Your task to perform on an android device: install app "Google Pay: Save, Pay, Manage" Image 0: 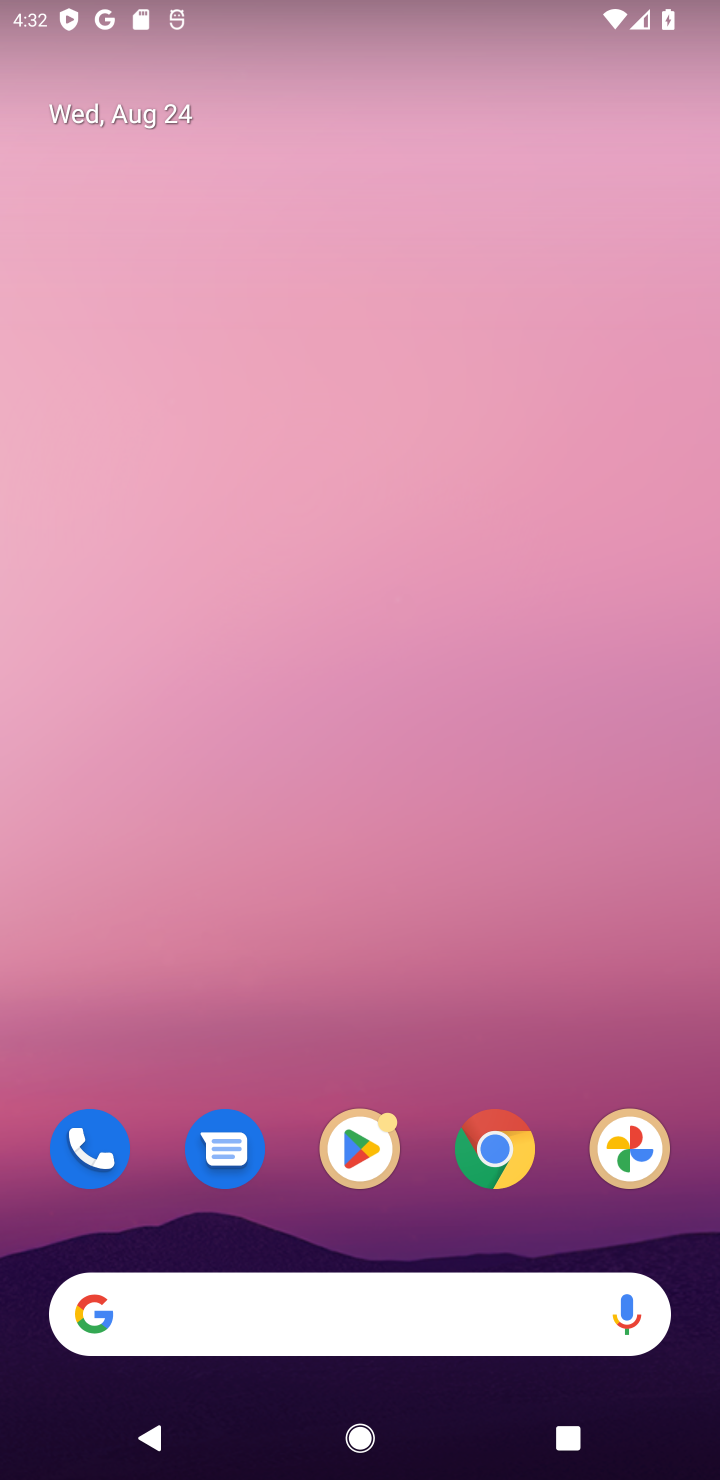
Step 0: click (367, 1154)
Your task to perform on an android device: install app "Google Pay: Save, Pay, Manage" Image 1: 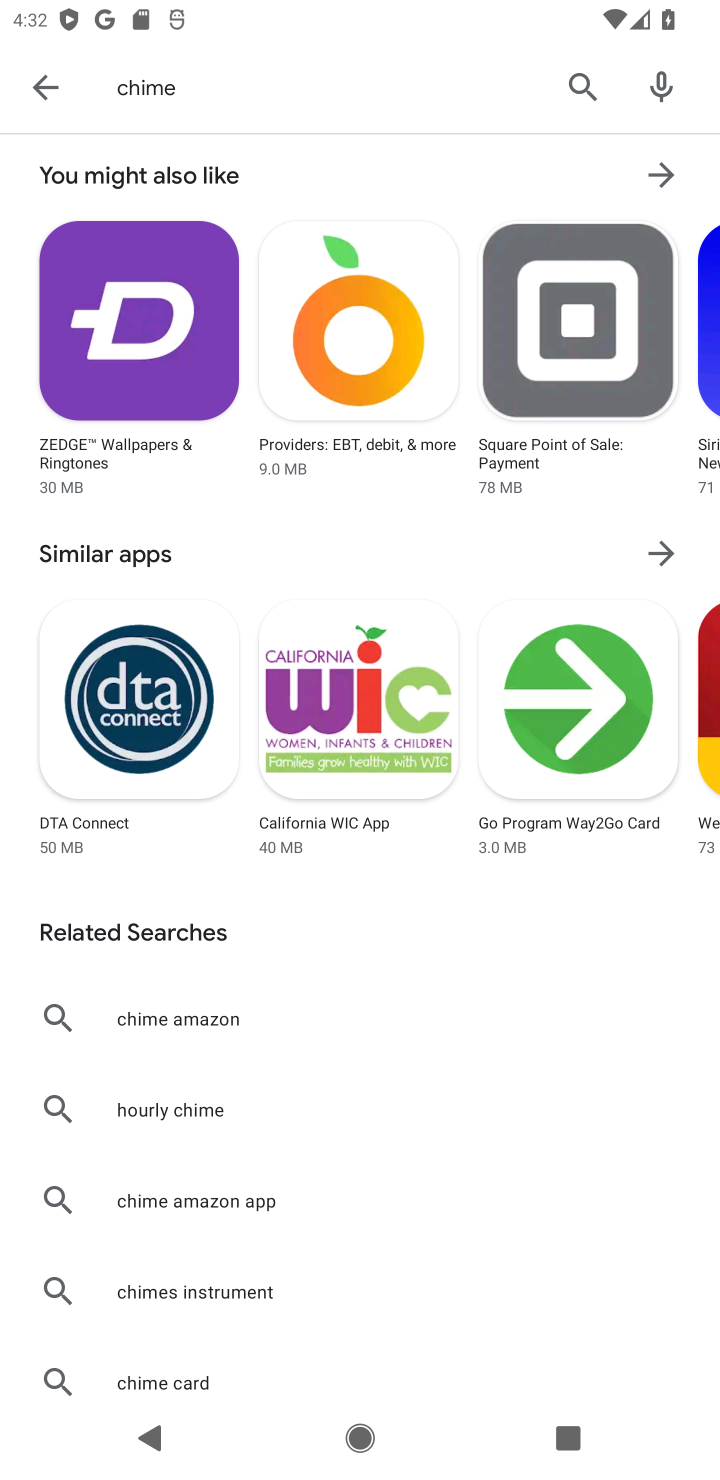
Step 1: click (572, 71)
Your task to perform on an android device: install app "Google Pay: Save, Pay, Manage" Image 2: 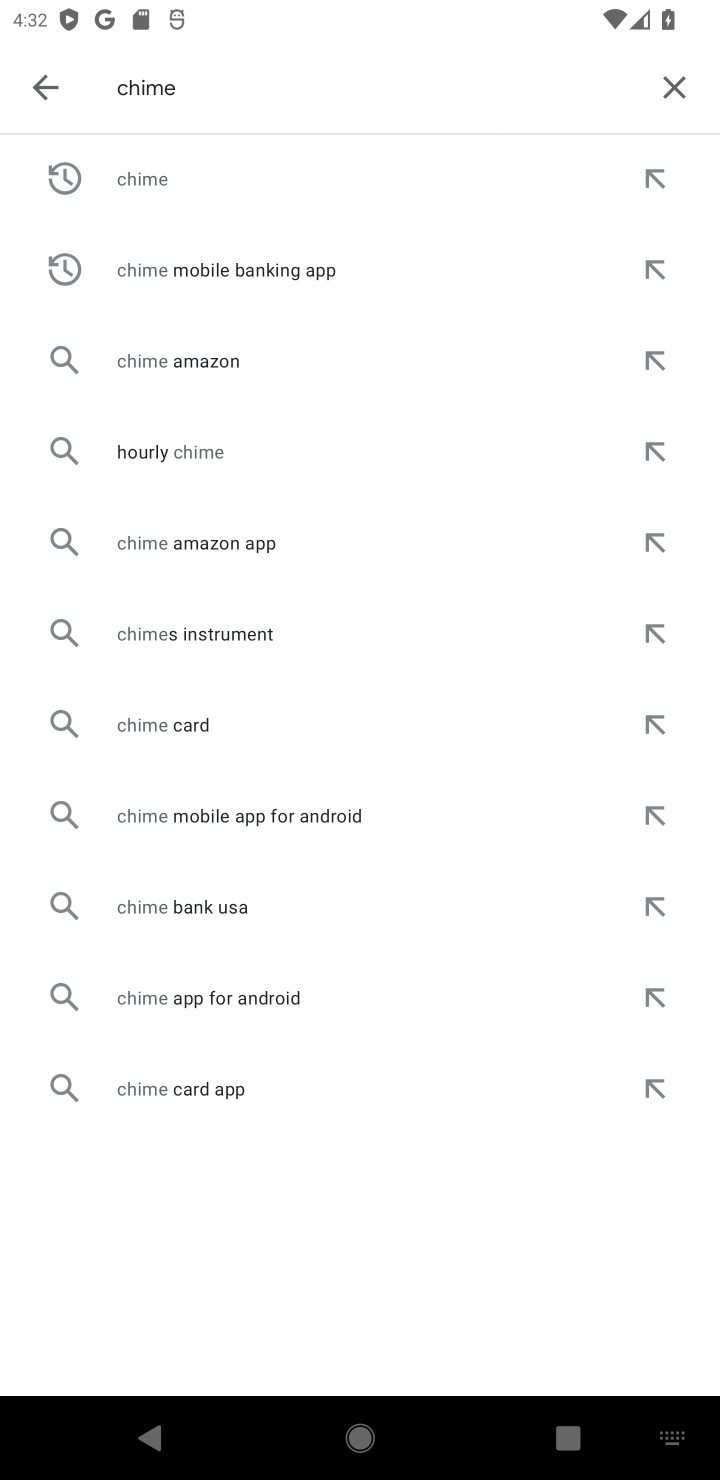
Step 2: click (674, 93)
Your task to perform on an android device: install app "Google Pay: Save, Pay, Manage" Image 3: 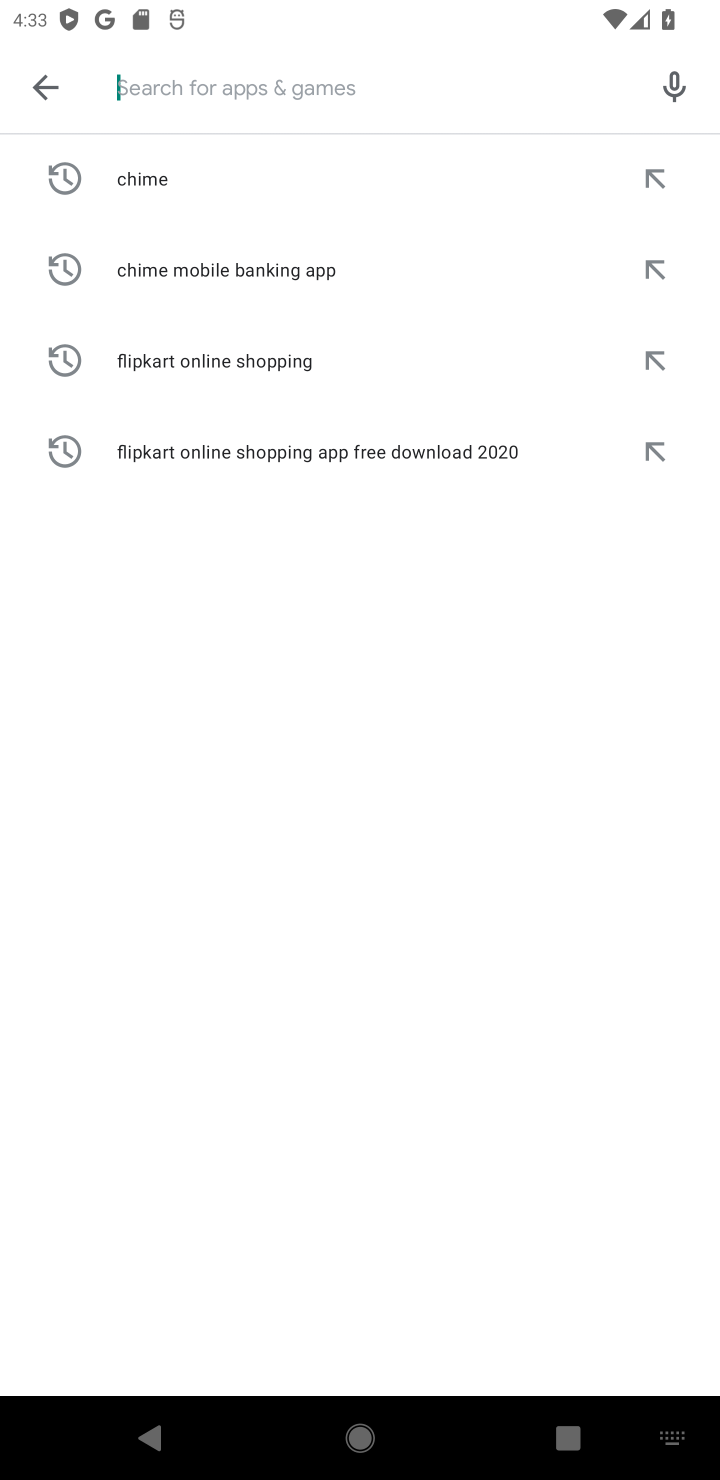
Step 3: type "Google Pay : Save, Pay Manage"
Your task to perform on an android device: install app "Google Pay: Save, Pay, Manage" Image 4: 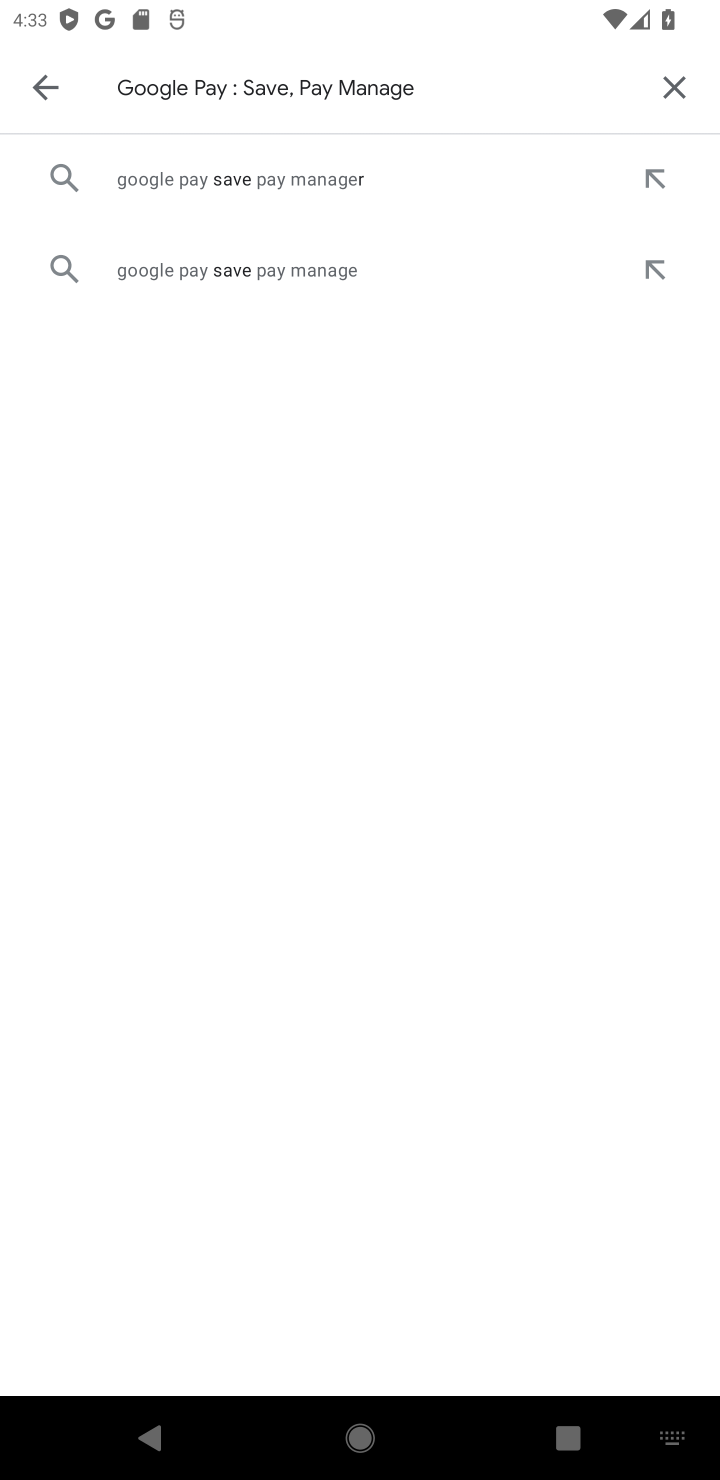
Step 4: click (233, 263)
Your task to perform on an android device: install app "Google Pay: Save, Pay, Manage" Image 5: 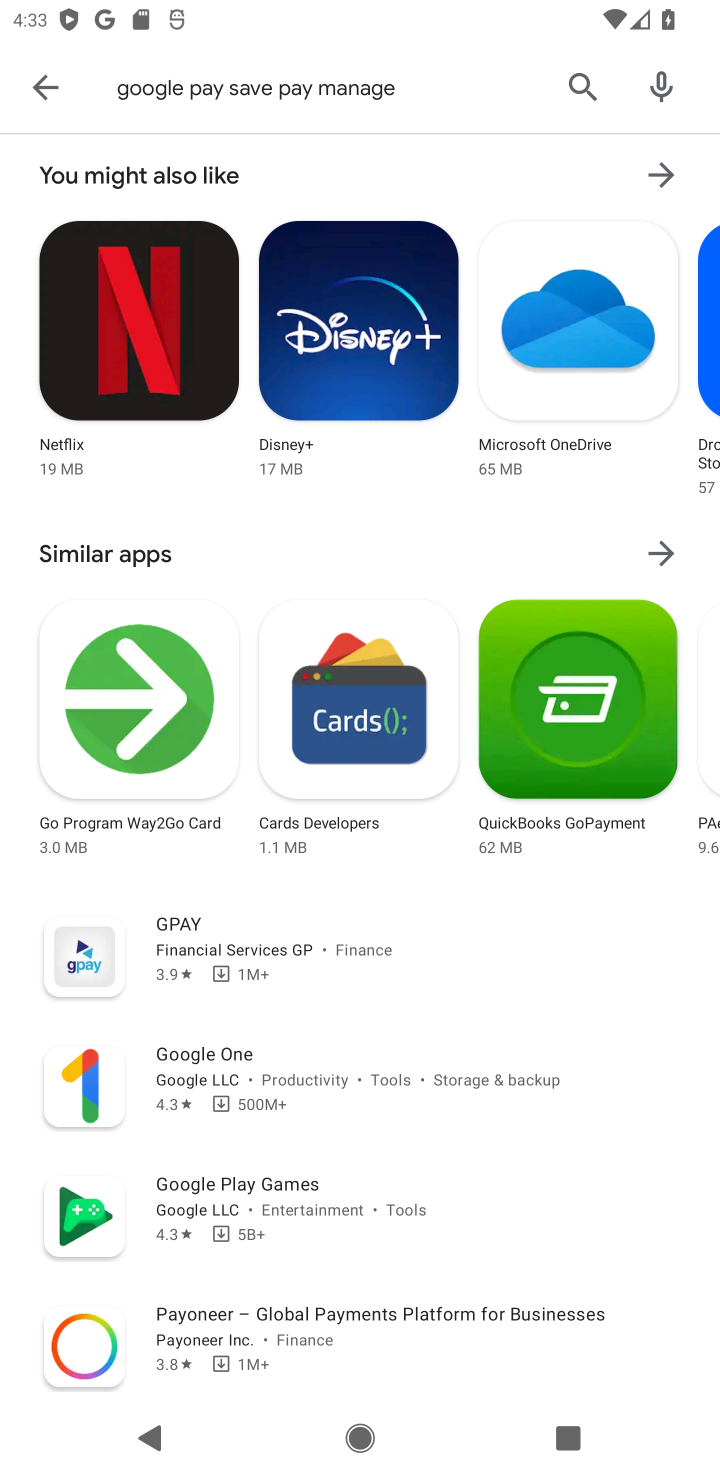
Step 5: click (576, 92)
Your task to perform on an android device: install app "Google Pay: Save, Pay, Manage" Image 6: 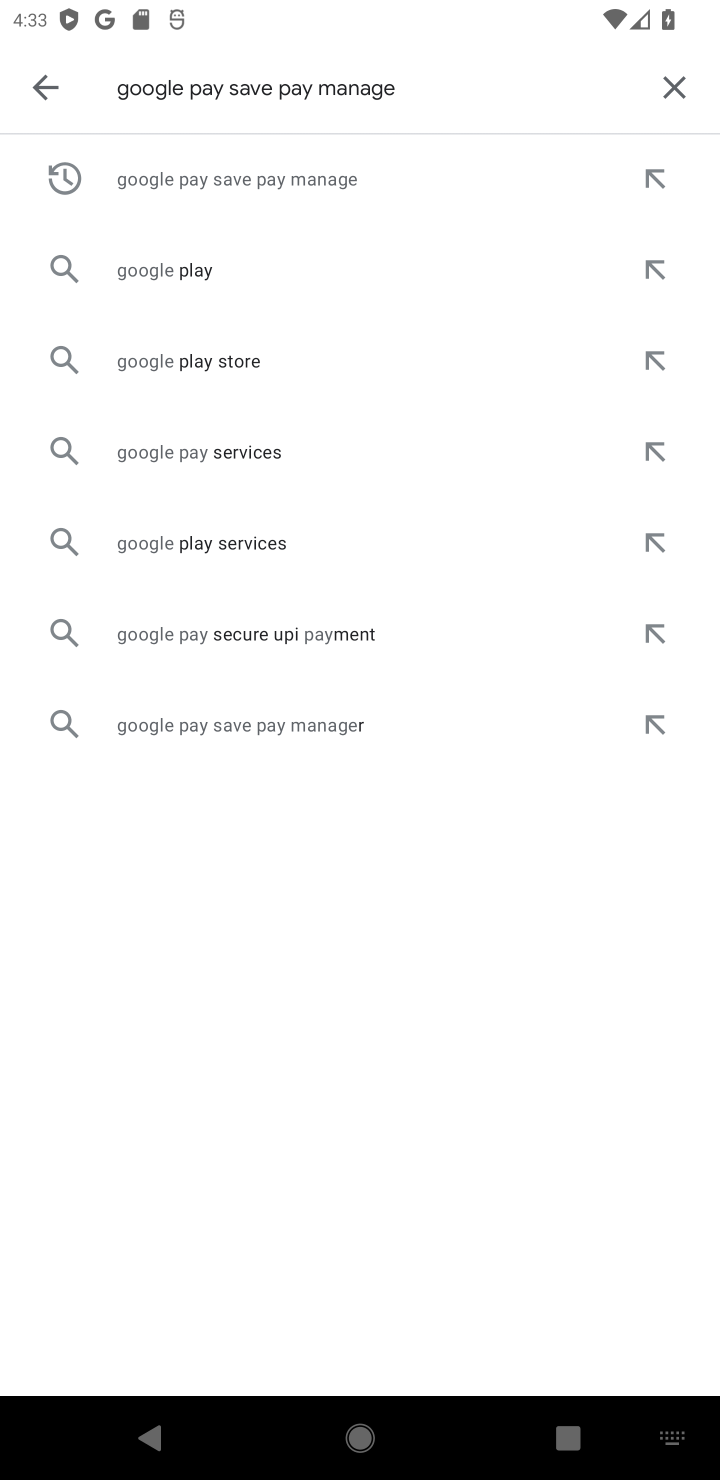
Step 6: click (655, 86)
Your task to perform on an android device: install app "Google Pay: Save, Pay, Manage" Image 7: 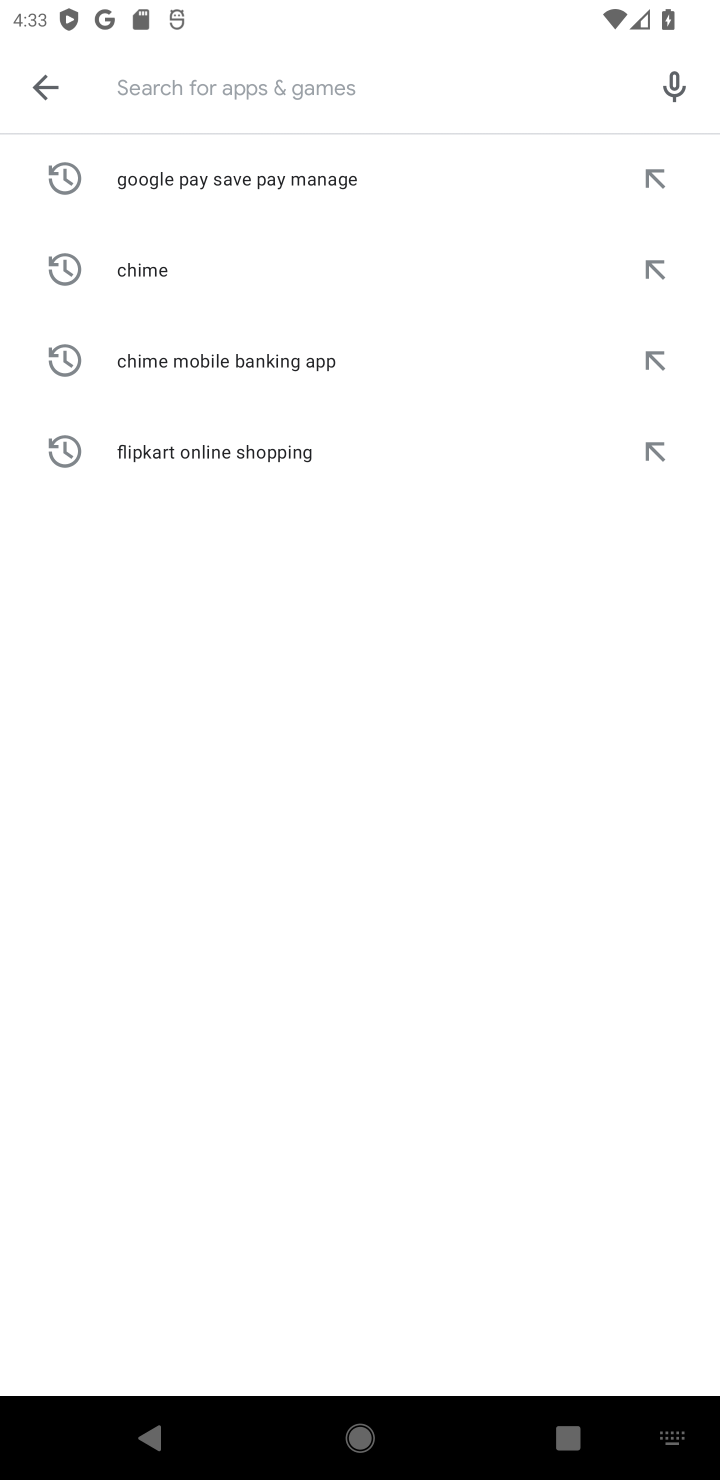
Step 7: type "Google Pay"
Your task to perform on an android device: install app "Google Pay: Save, Pay, Manage" Image 8: 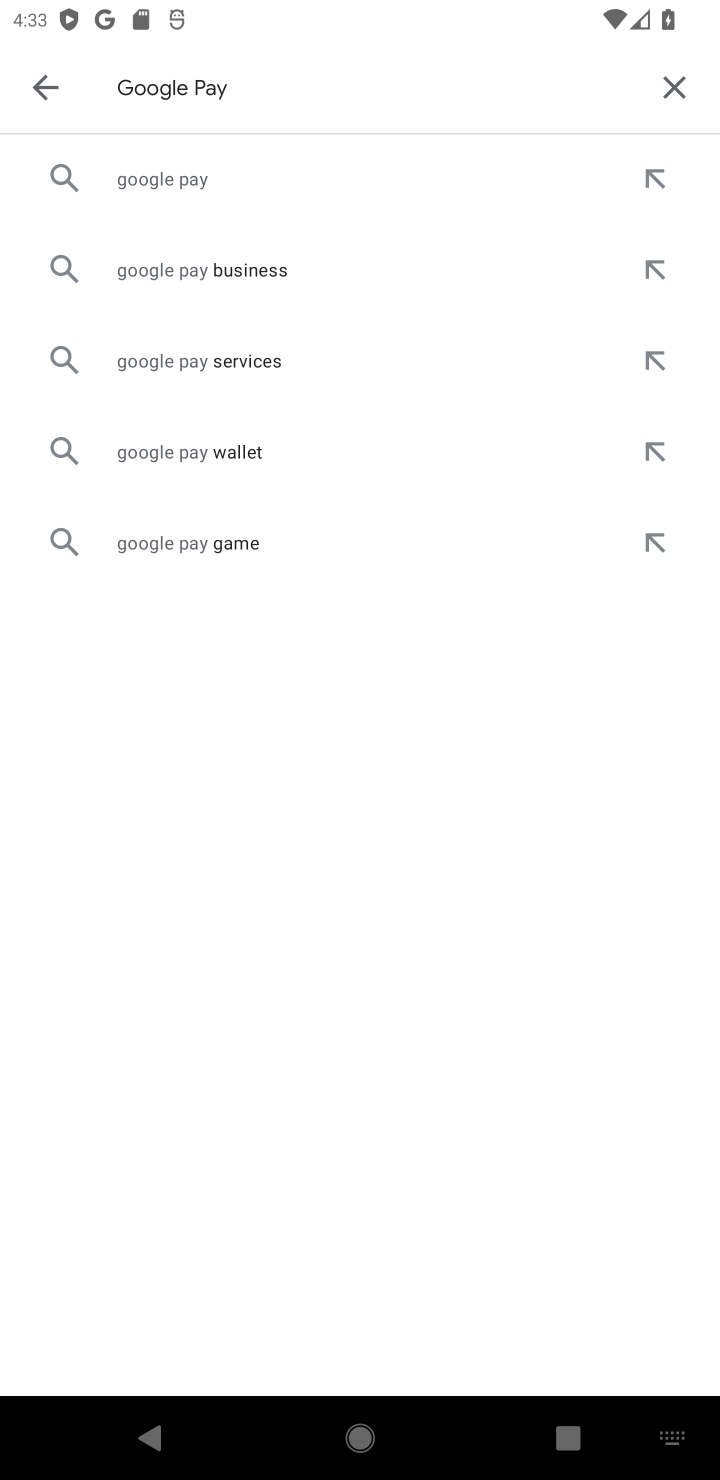
Step 8: click (153, 175)
Your task to perform on an android device: install app "Google Pay: Save, Pay, Manage" Image 9: 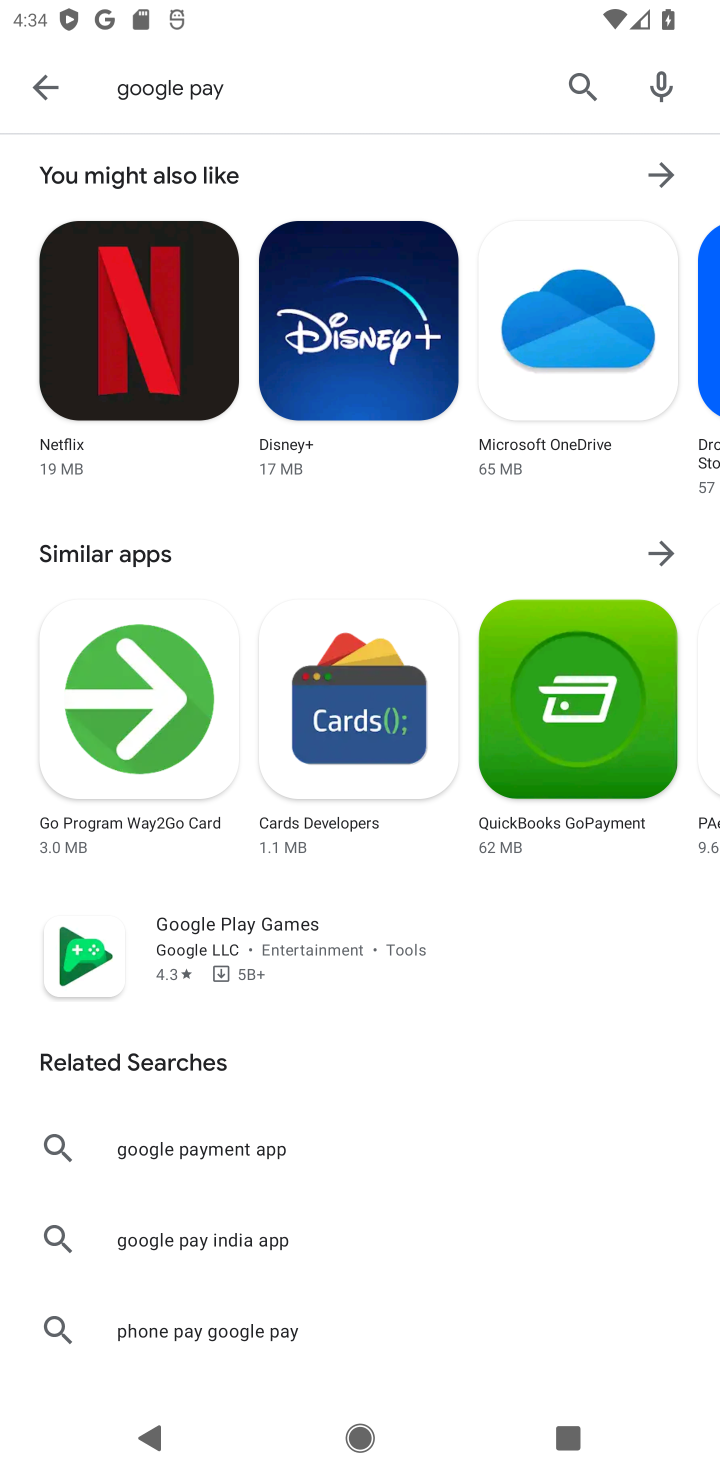
Step 9: task complete